Your task to perform on an android device: Search for Italian restaurants on Maps Image 0: 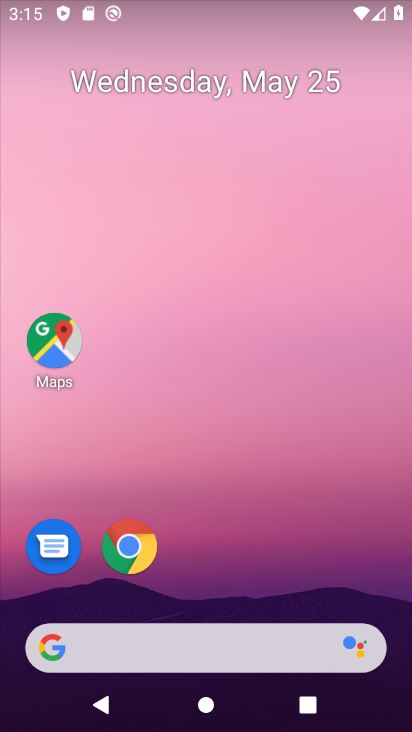
Step 0: drag from (174, 617) to (329, 72)
Your task to perform on an android device: Search for Italian restaurants on Maps Image 1: 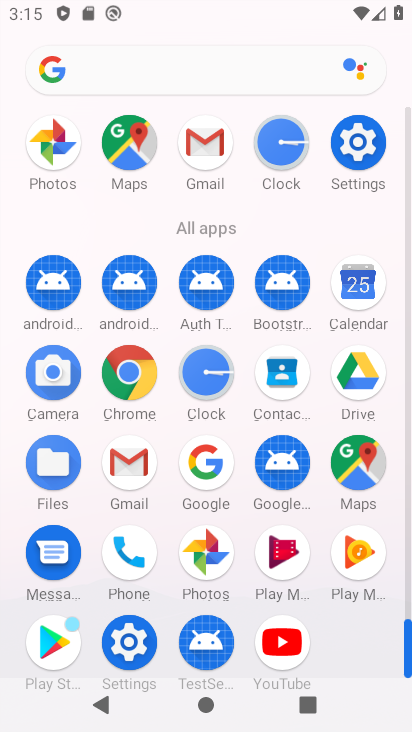
Step 1: click (351, 460)
Your task to perform on an android device: Search for Italian restaurants on Maps Image 2: 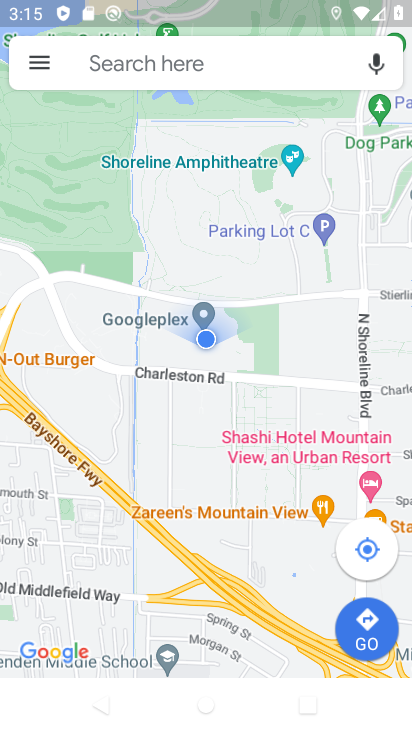
Step 2: click (180, 67)
Your task to perform on an android device: Search for Italian restaurants on Maps Image 3: 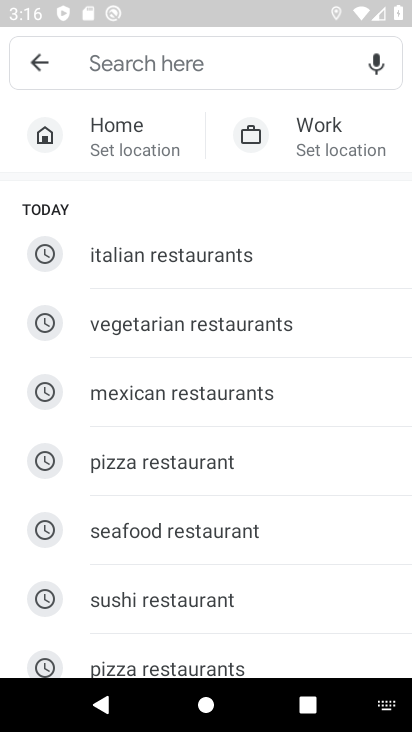
Step 3: type "Italian restaurants"
Your task to perform on an android device: Search for Italian restaurants on Maps Image 4: 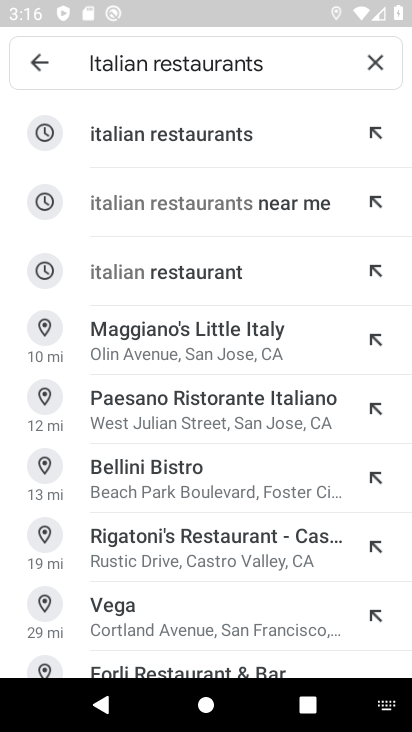
Step 4: click (199, 154)
Your task to perform on an android device: Search for Italian restaurants on Maps Image 5: 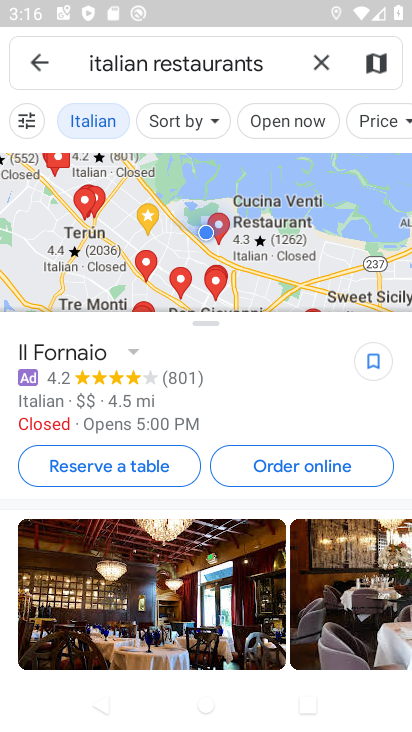
Step 5: task complete